Your task to perform on an android device: Search for vegetarian restaurants on Maps Image 0: 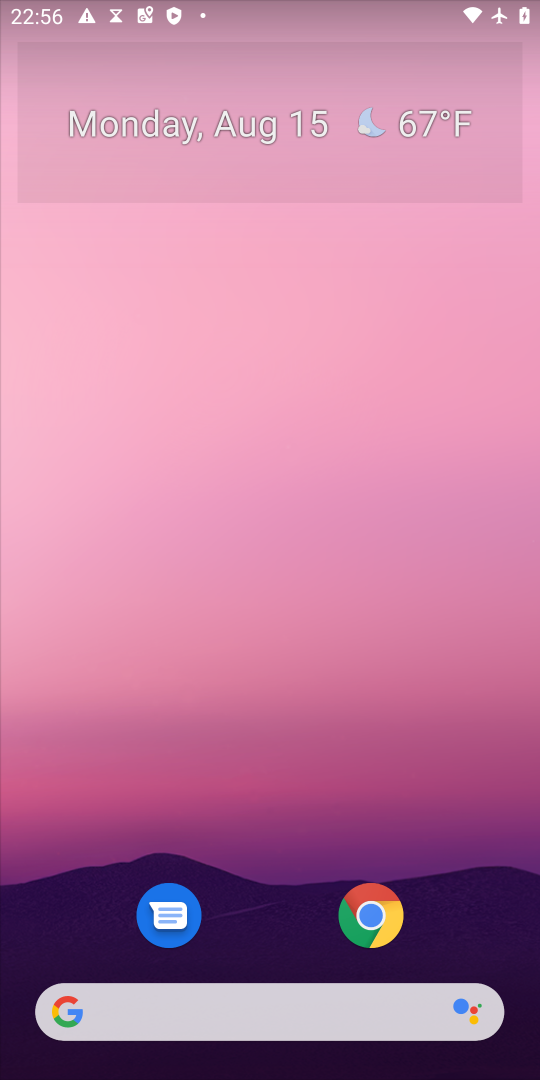
Step 0: drag from (336, 945) to (443, 199)
Your task to perform on an android device: Search for vegetarian restaurants on Maps Image 1: 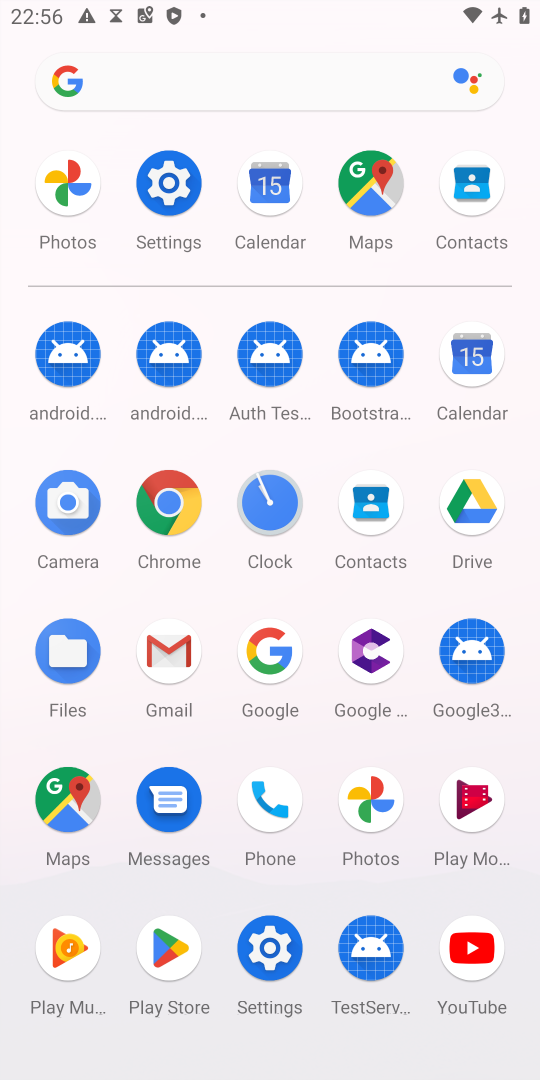
Step 1: click (83, 793)
Your task to perform on an android device: Search for vegetarian restaurants on Maps Image 2: 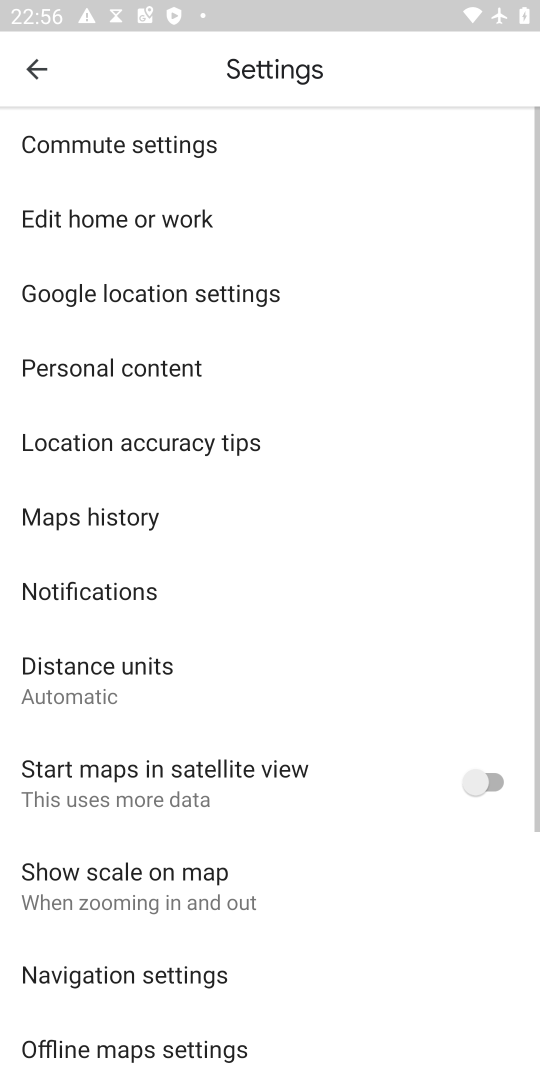
Step 2: press back button
Your task to perform on an android device: Search for vegetarian restaurants on Maps Image 3: 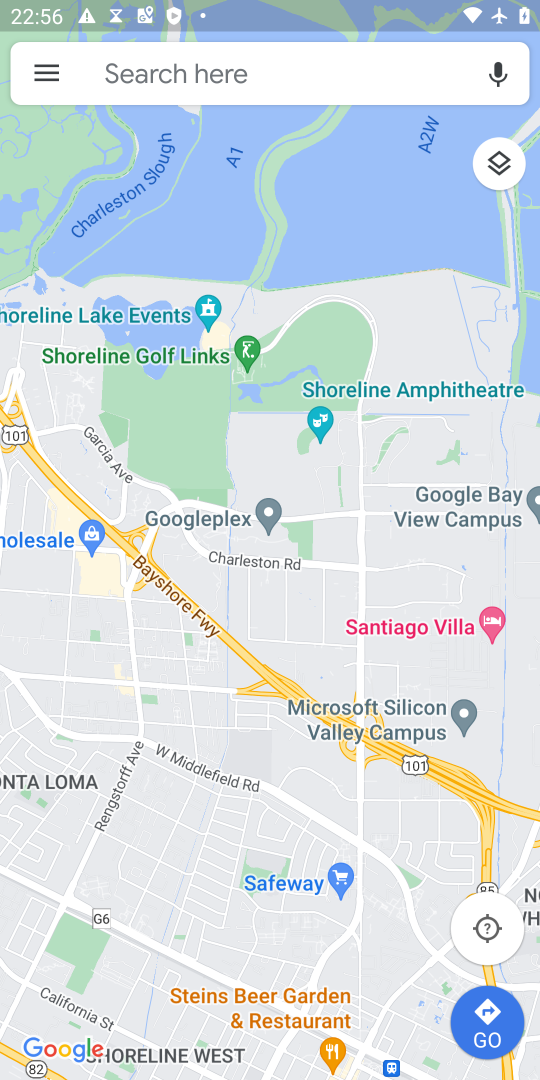
Step 3: click (227, 80)
Your task to perform on an android device: Search for vegetarian restaurants on Maps Image 4: 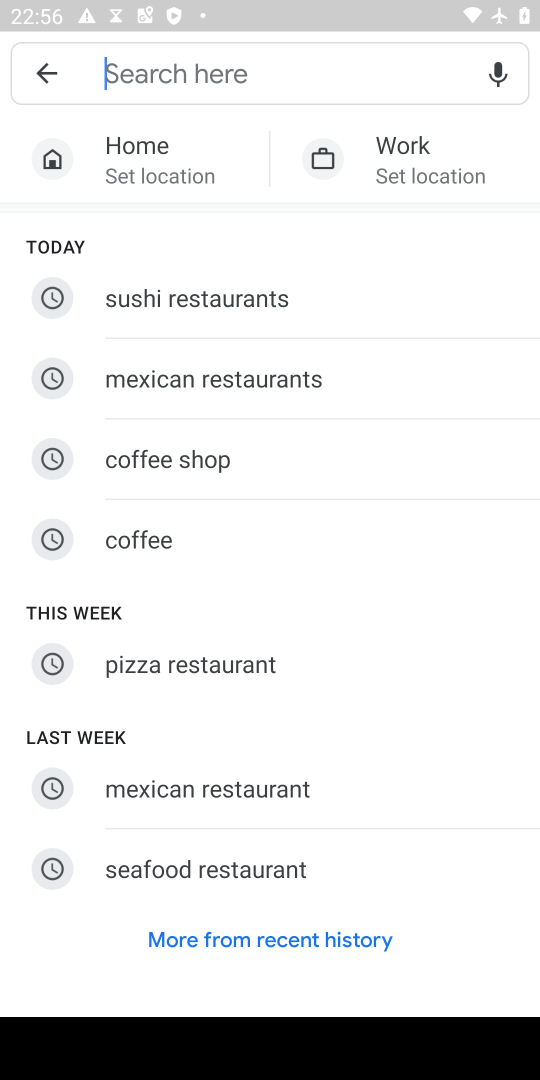
Step 4: type "vegetarian restaurants"
Your task to perform on an android device: Search for vegetarian restaurants on Maps Image 5: 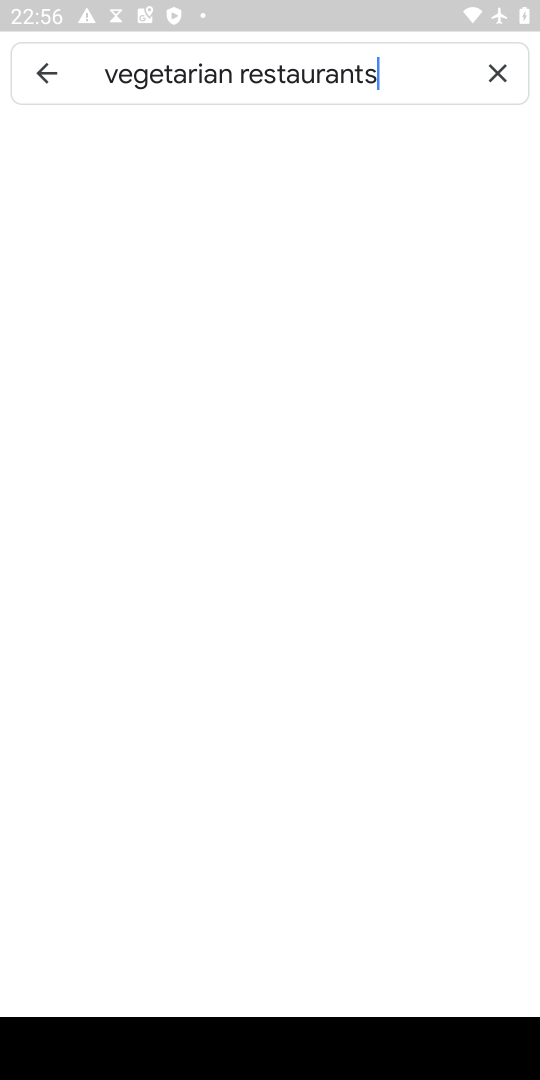
Step 5: press enter
Your task to perform on an android device: Search for vegetarian restaurants on Maps Image 6: 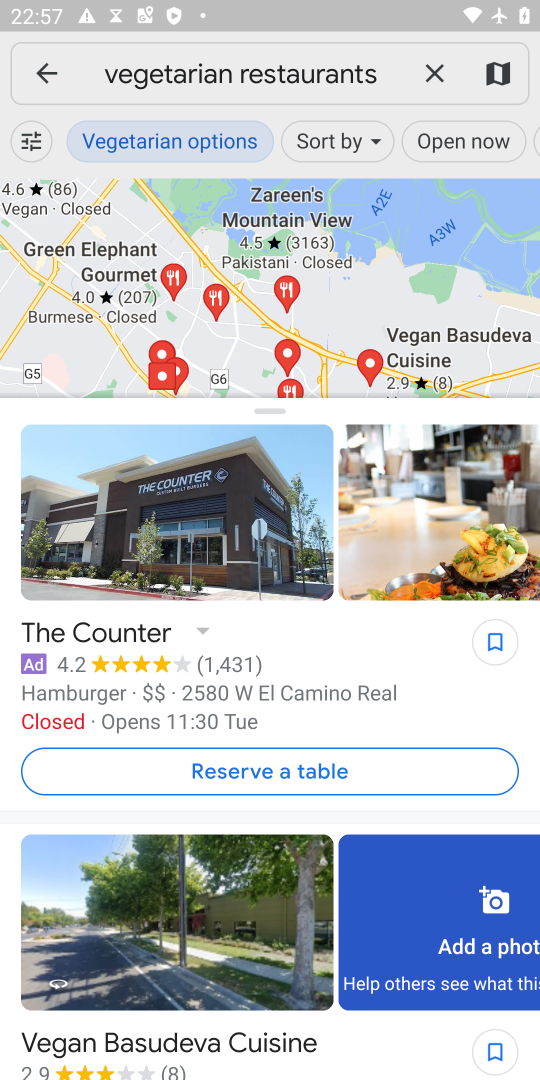
Step 6: task complete